Your task to perform on an android device: install app "Flipkart Online Shopping App" Image 0: 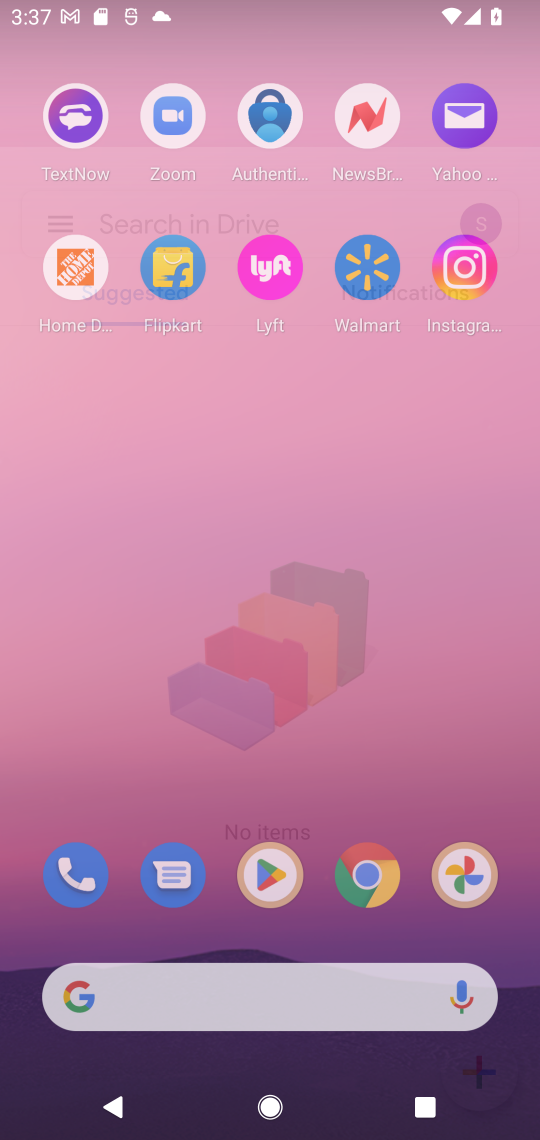
Step 0: press home button
Your task to perform on an android device: install app "Flipkart Online Shopping App" Image 1: 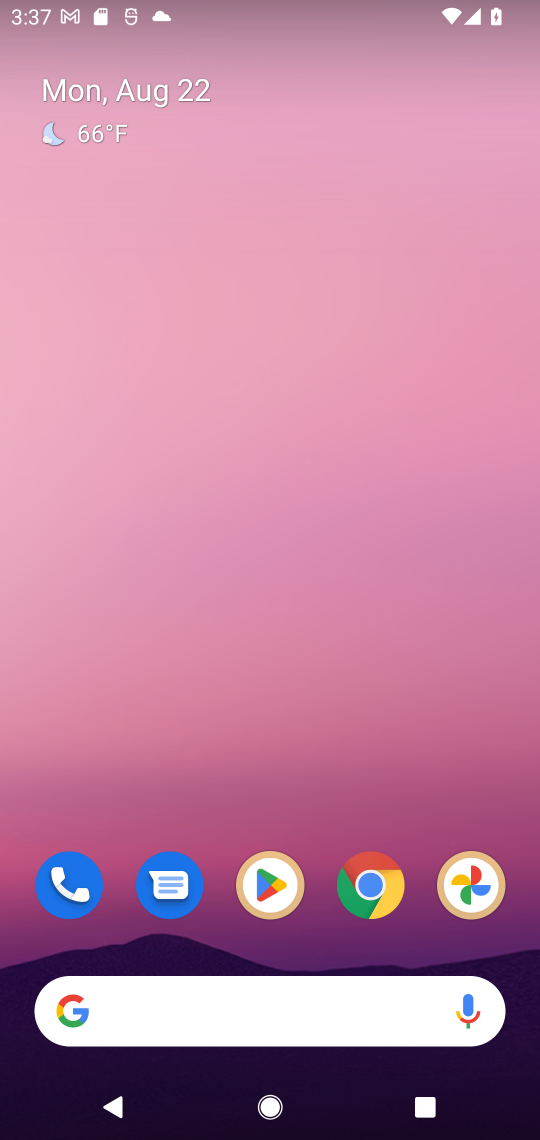
Step 1: press home button
Your task to perform on an android device: install app "Flipkart Online Shopping App" Image 2: 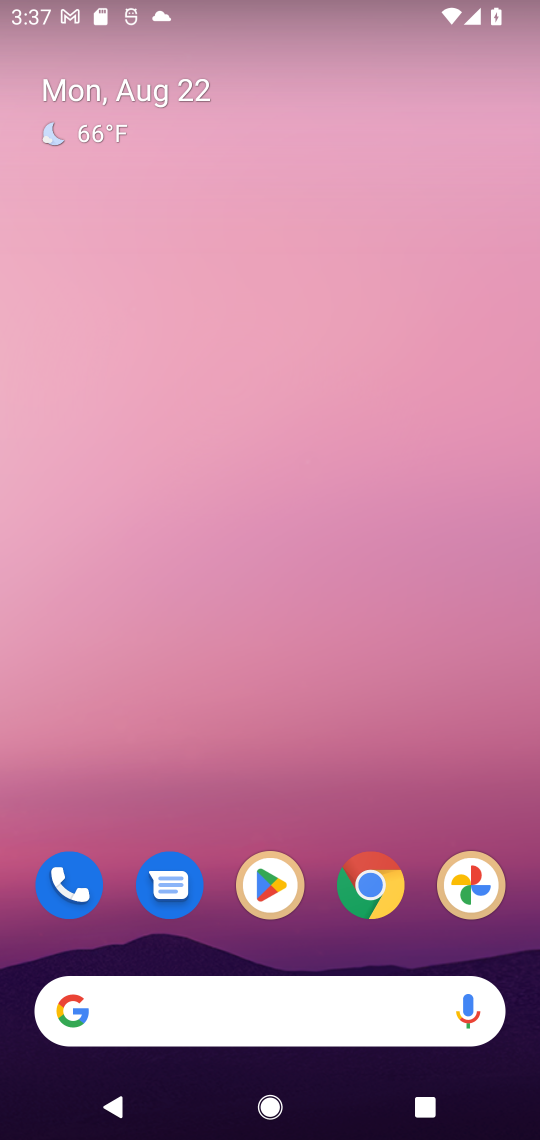
Step 2: click (262, 884)
Your task to perform on an android device: install app "Flipkart Online Shopping App" Image 3: 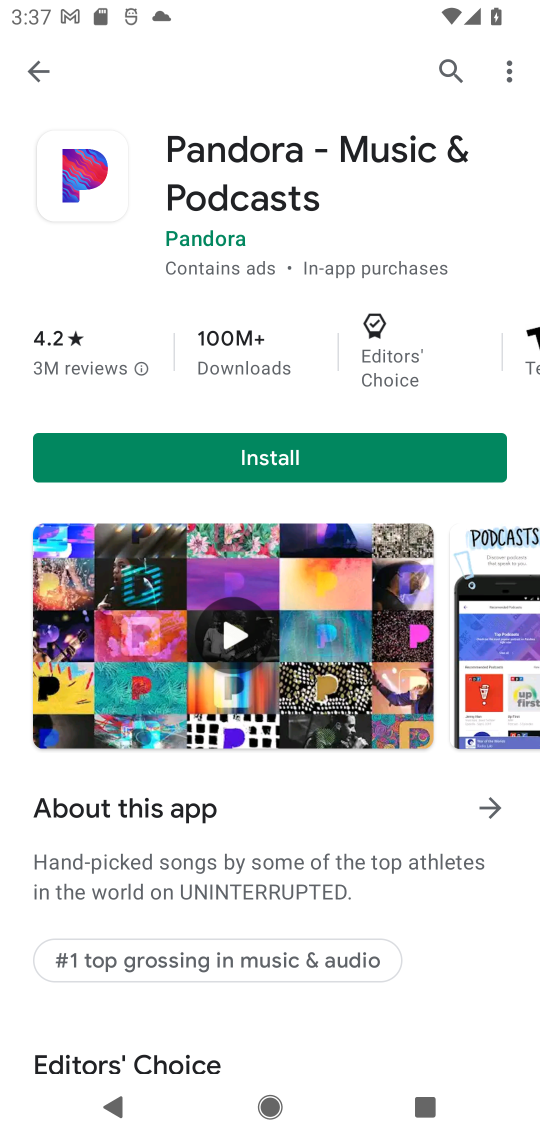
Step 3: click (447, 62)
Your task to perform on an android device: install app "Flipkart Online Shopping App" Image 4: 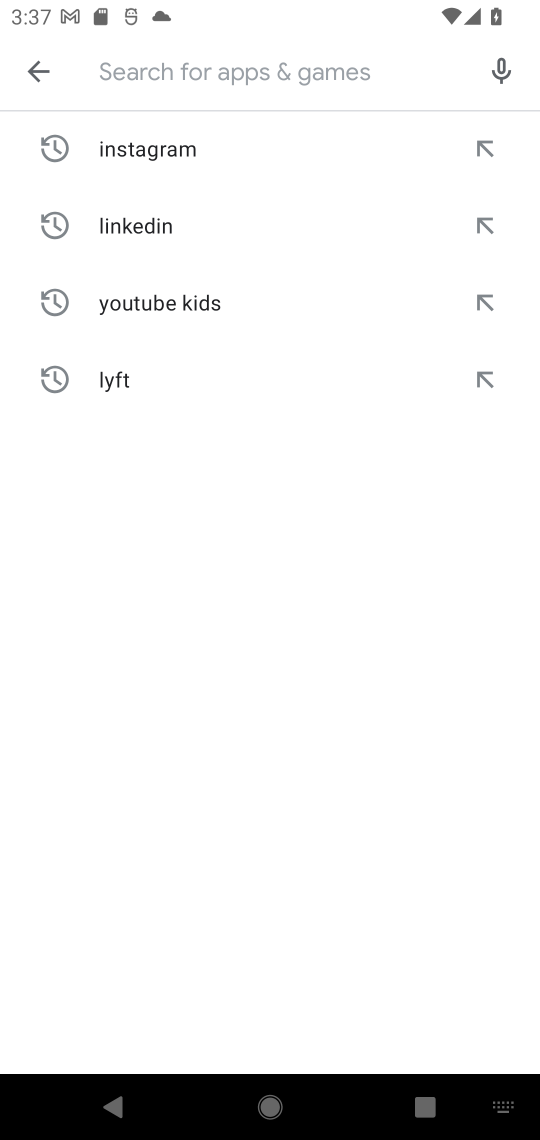
Step 4: type "Flipkart Online Shopping App"
Your task to perform on an android device: install app "Flipkart Online Shopping App" Image 5: 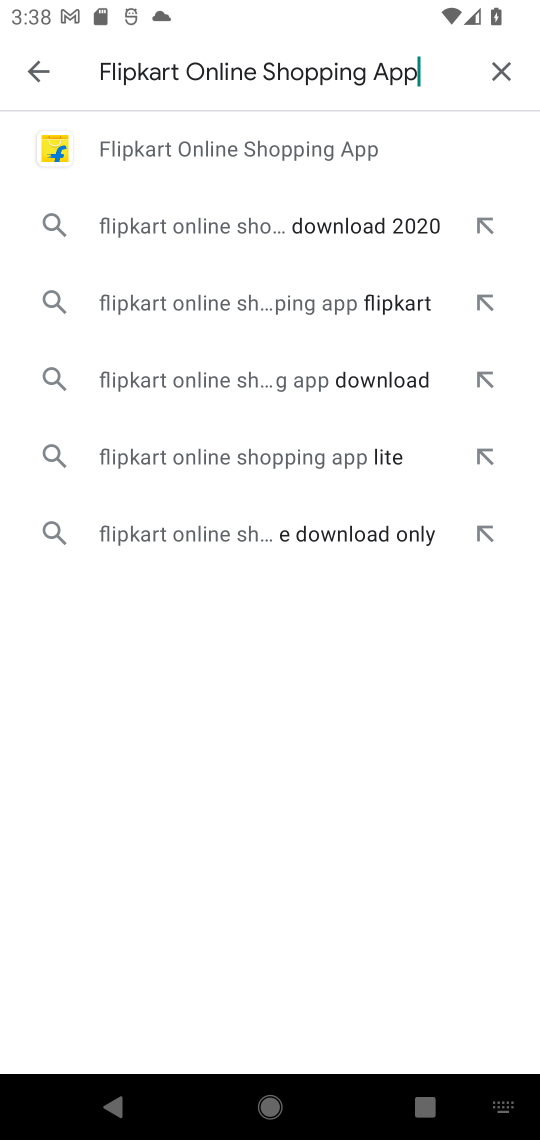
Step 5: click (252, 138)
Your task to perform on an android device: install app "Flipkart Online Shopping App" Image 6: 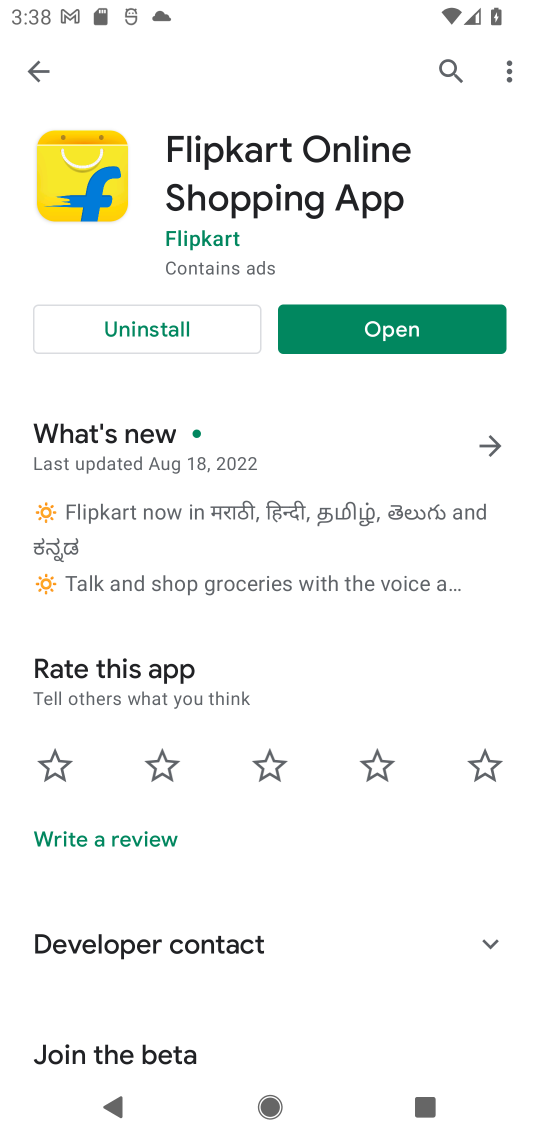
Step 6: click (381, 322)
Your task to perform on an android device: install app "Flipkart Online Shopping App" Image 7: 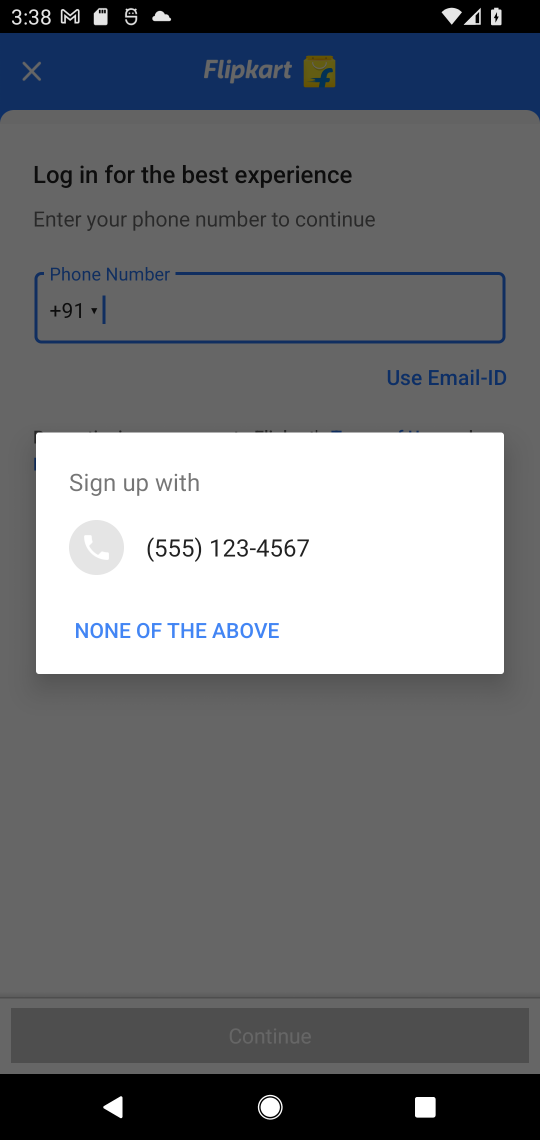
Step 7: click (239, 632)
Your task to perform on an android device: install app "Flipkart Online Shopping App" Image 8: 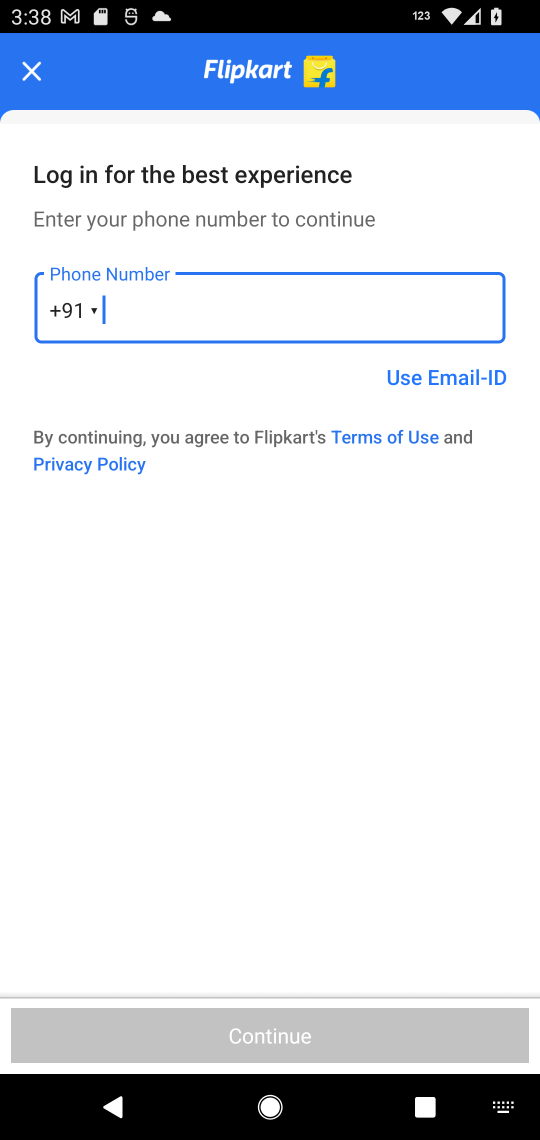
Step 8: click (432, 383)
Your task to perform on an android device: install app "Flipkart Online Shopping App" Image 9: 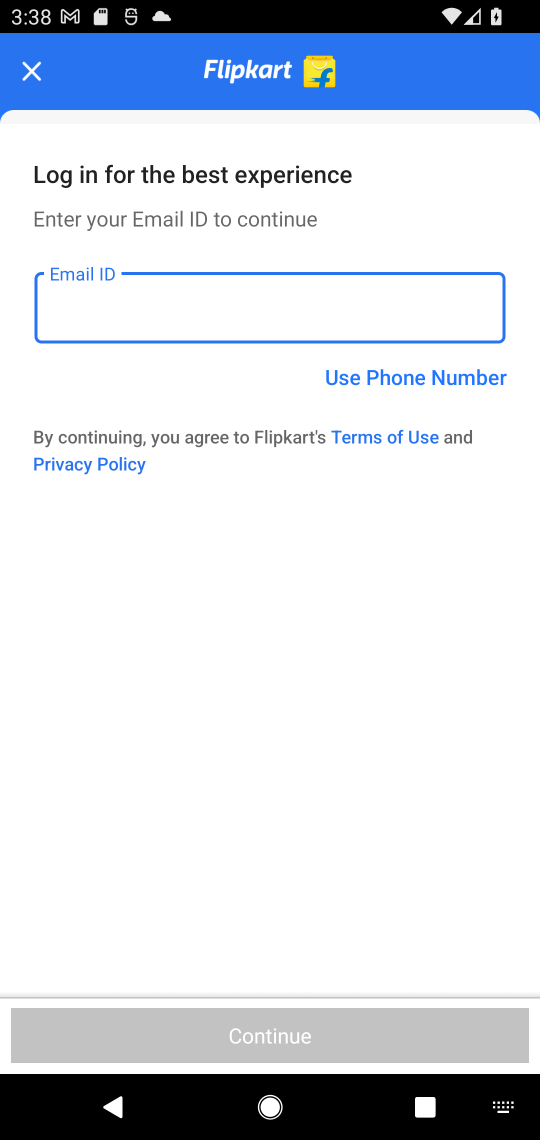
Step 9: task complete